Your task to perform on an android device: change notifications settings Image 0: 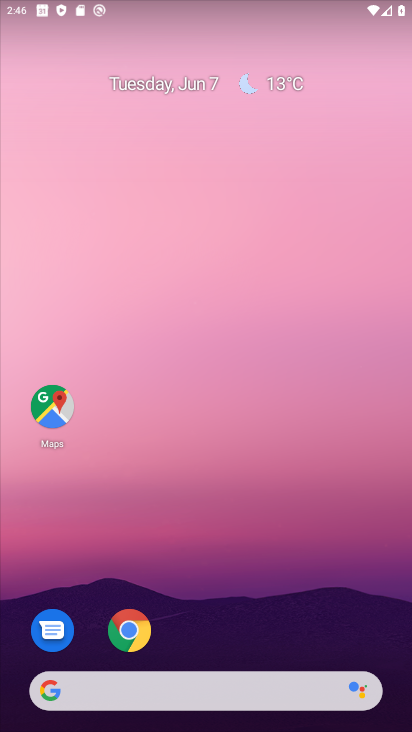
Step 0: drag from (202, 687) to (226, 34)
Your task to perform on an android device: change notifications settings Image 1: 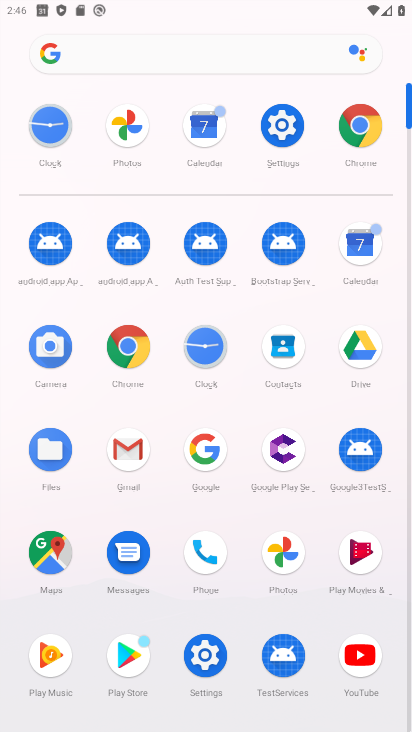
Step 1: click (286, 123)
Your task to perform on an android device: change notifications settings Image 2: 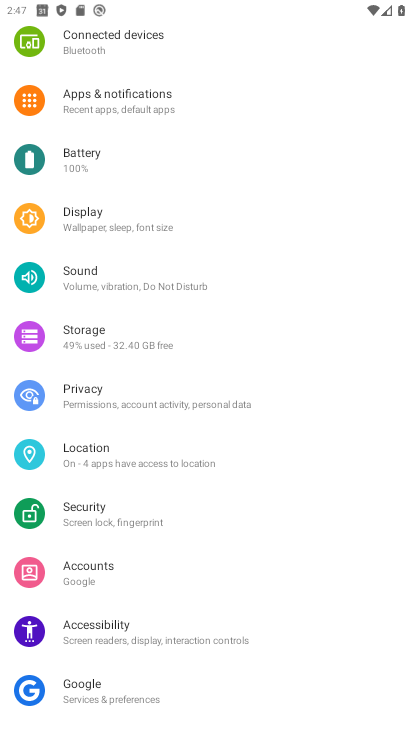
Step 2: click (127, 274)
Your task to perform on an android device: change notifications settings Image 3: 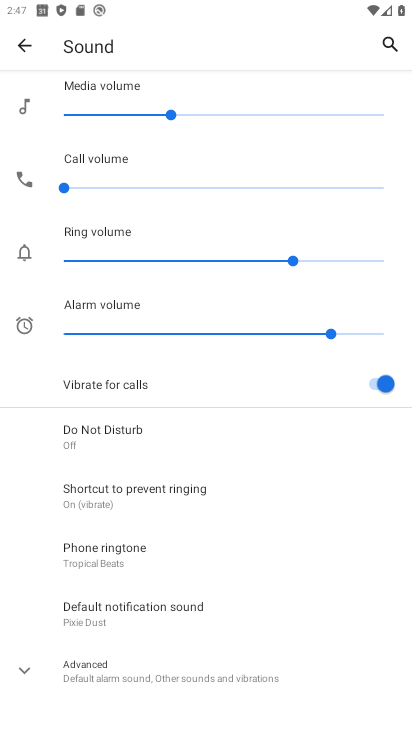
Step 3: click (141, 600)
Your task to perform on an android device: change notifications settings Image 4: 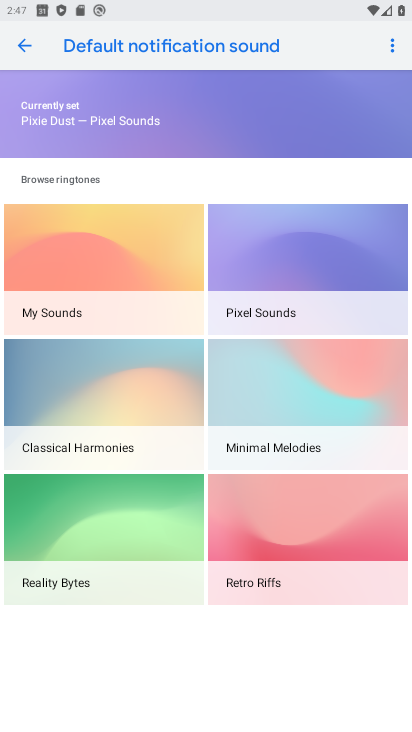
Step 4: click (233, 280)
Your task to perform on an android device: change notifications settings Image 5: 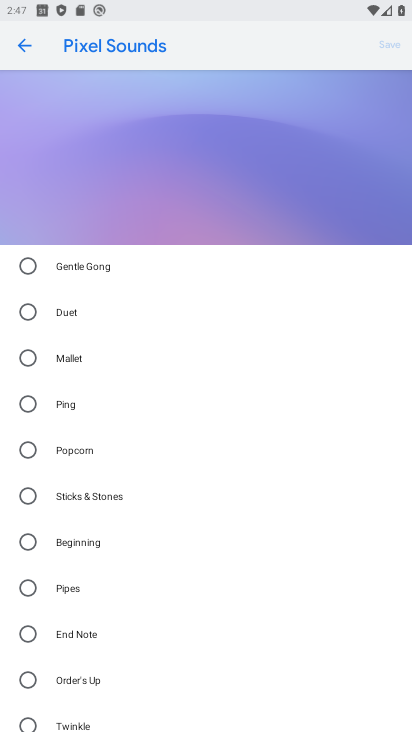
Step 5: click (26, 490)
Your task to perform on an android device: change notifications settings Image 6: 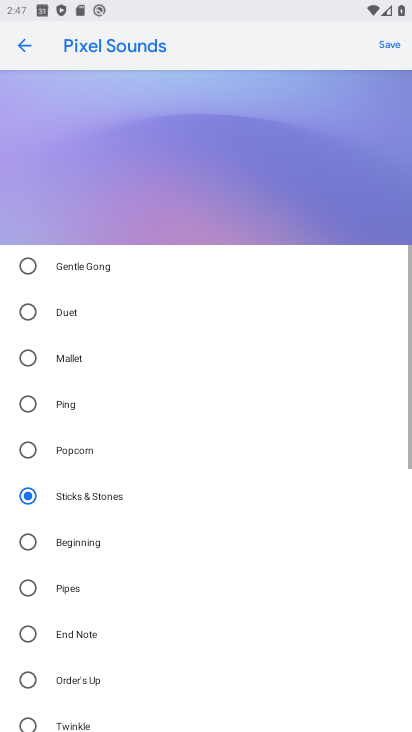
Step 6: click (390, 44)
Your task to perform on an android device: change notifications settings Image 7: 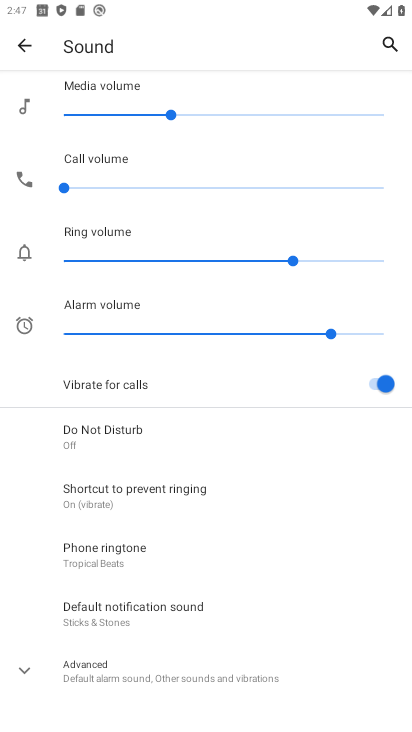
Step 7: task complete